Your task to perform on an android device: clear all cookies in the chrome app Image 0: 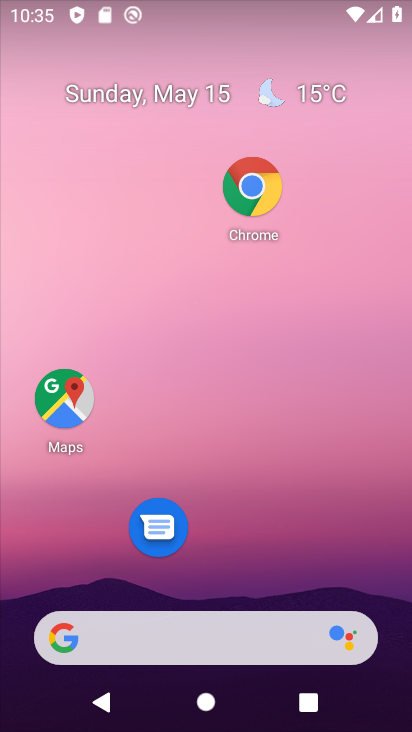
Step 0: click (265, 183)
Your task to perform on an android device: clear all cookies in the chrome app Image 1: 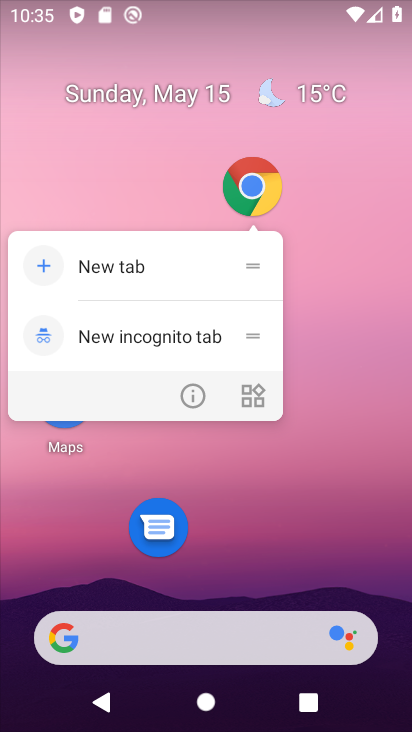
Step 1: click (244, 183)
Your task to perform on an android device: clear all cookies in the chrome app Image 2: 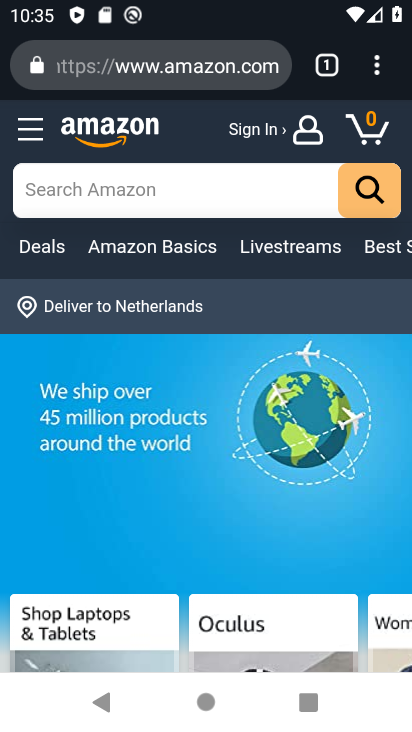
Step 2: click (380, 67)
Your task to perform on an android device: clear all cookies in the chrome app Image 3: 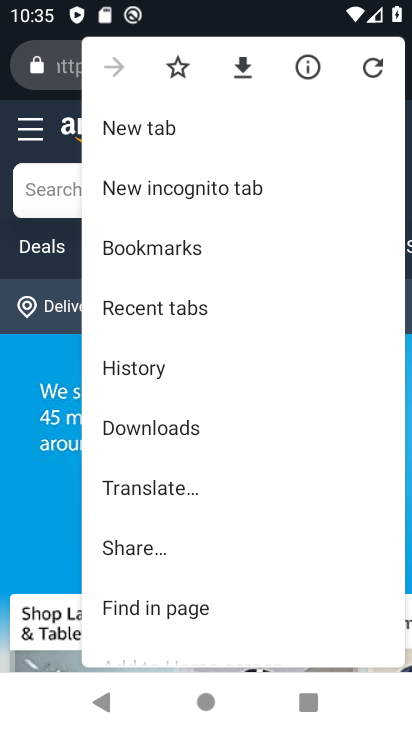
Step 3: click (192, 243)
Your task to perform on an android device: clear all cookies in the chrome app Image 4: 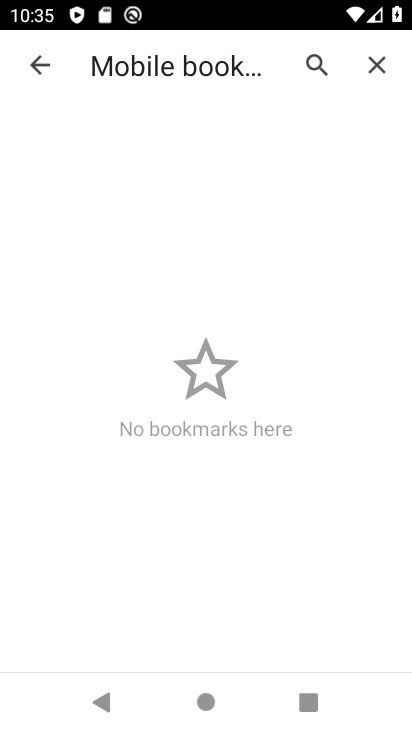
Step 4: click (378, 69)
Your task to perform on an android device: clear all cookies in the chrome app Image 5: 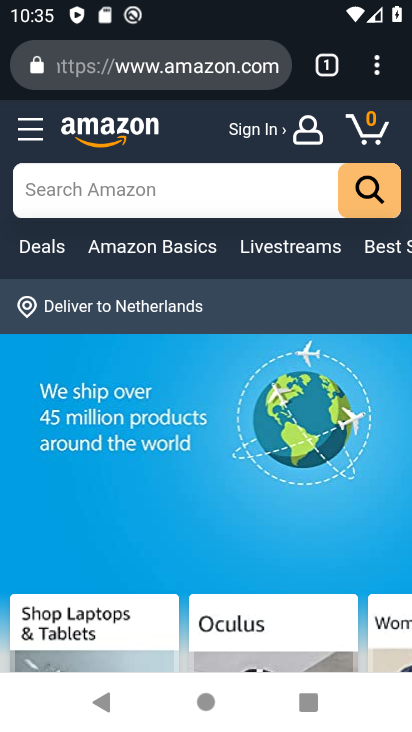
Step 5: click (378, 76)
Your task to perform on an android device: clear all cookies in the chrome app Image 6: 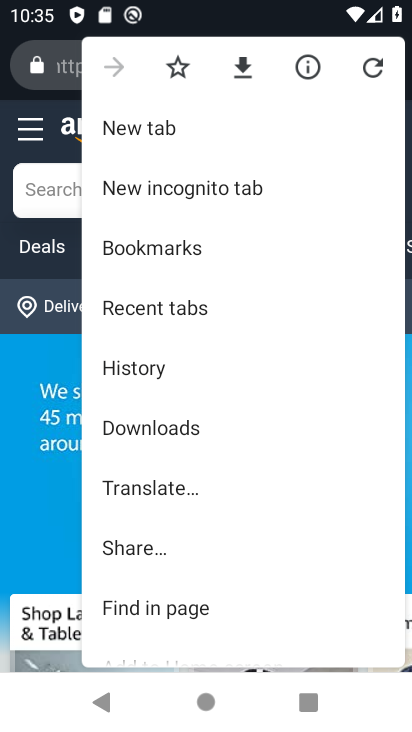
Step 6: drag from (239, 559) to (210, 232)
Your task to perform on an android device: clear all cookies in the chrome app Image 7: 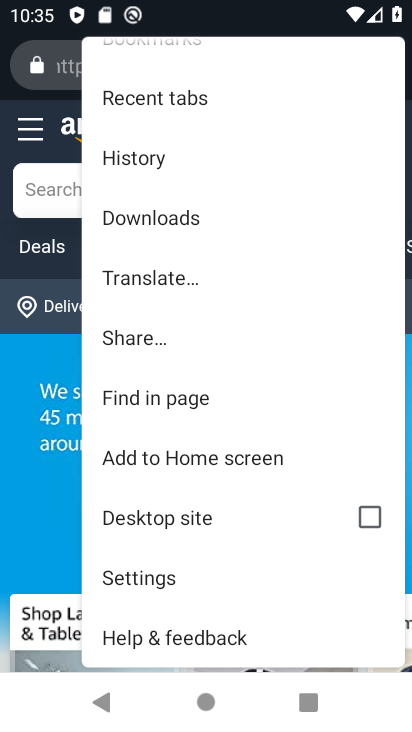
Step 7: click (141, 152)
Your task to perform on an android device: clear all cookies in the chrome app Image 8: 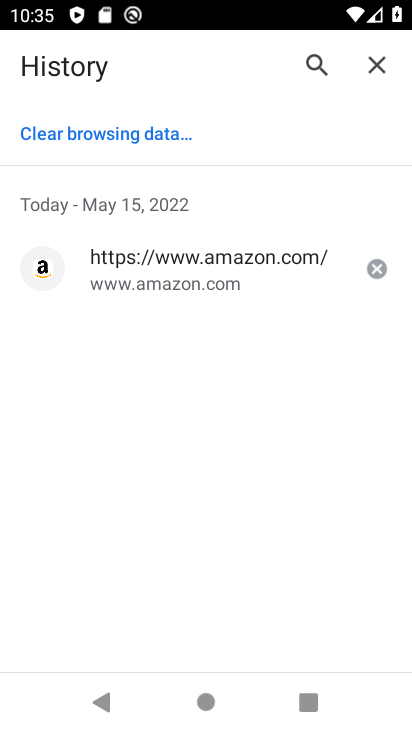
Step 8: click (139, 135)
Your task to perform on an android device: clear all cookies in the chrome app Image 9: 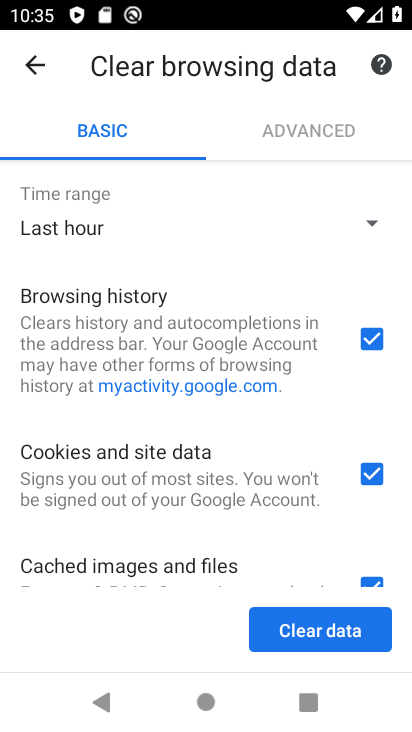
Step 9: click (378, 336)
Your task to perform on an android device: clear all cookies in the chrome app Image 10: 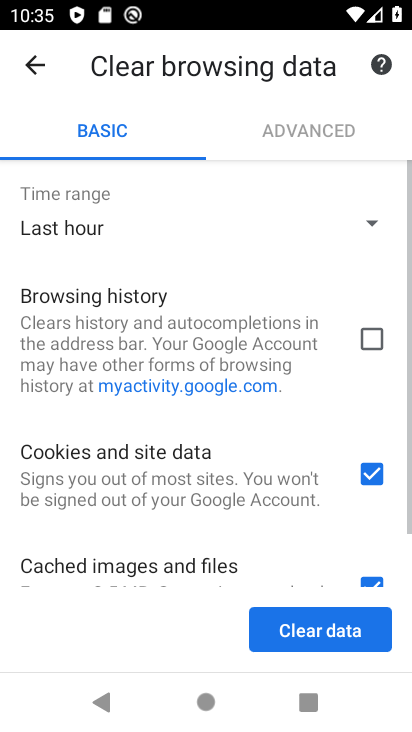
Step 10: drag from (210, 225) to (210, 174)
Your task to perform on an android device: clear all cookies in the chrome app Image 11: 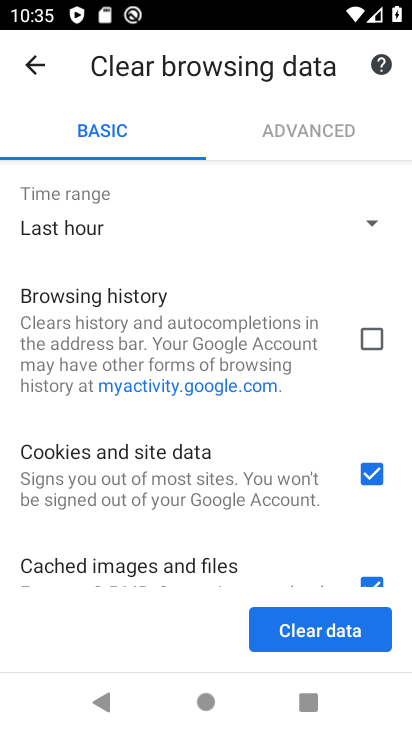
Step 11: click (376, 587)
Your task to perform on an android device: clear all cookies in the chrome app Image 12: 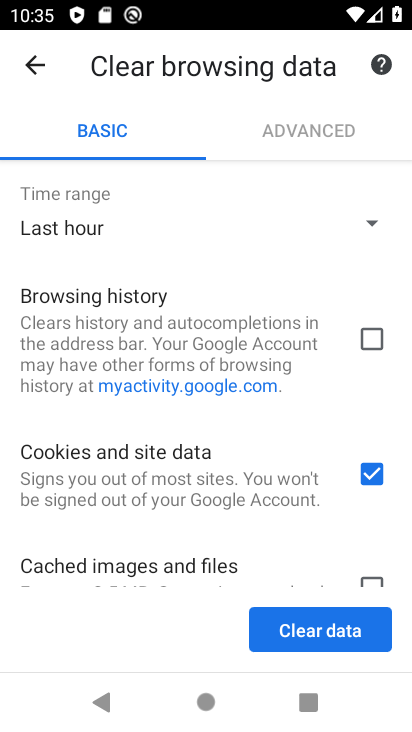
Step 12: click (293, 645)
Your task to perform on an android device: clear all cookies in the chrome app Image 13: 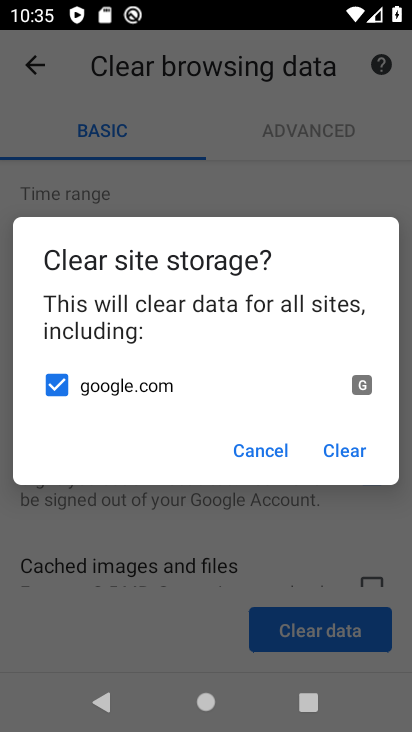
Step 13: click (324, 455)
Your task to perform on an android device: clear all cookies in the chrome app Image 14: 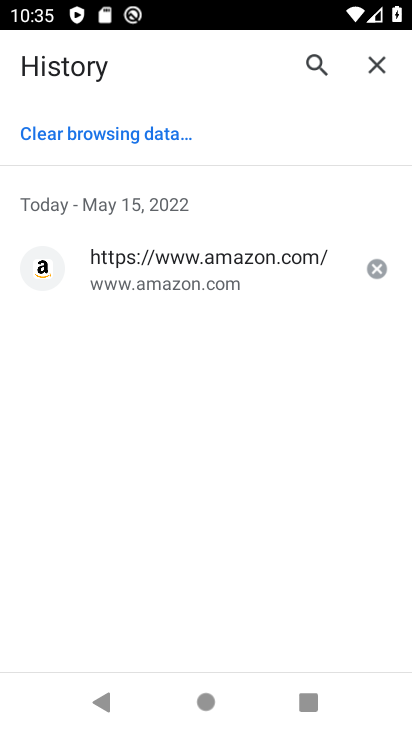
Step 14: task complete